Your task to perform on an android device: turn on priority inbox in the gmail app Image 0: 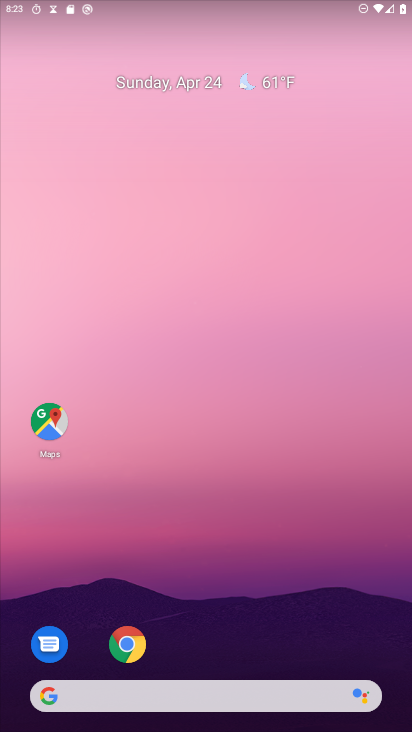
Step 0: drag from (205, 689) to (98, 146)
Your task to perform on an android device: turn on priority inbox in the gmail app Image 1: 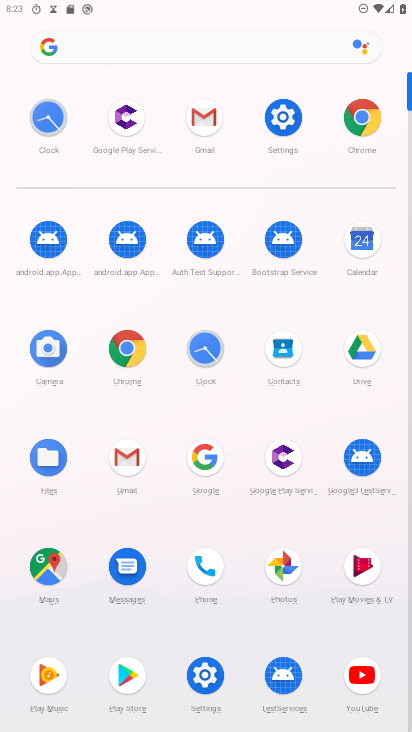
Step 1: click (132, 465)
Your task to perform on an android device: turn on priority inbox in the gmail app Image 2: 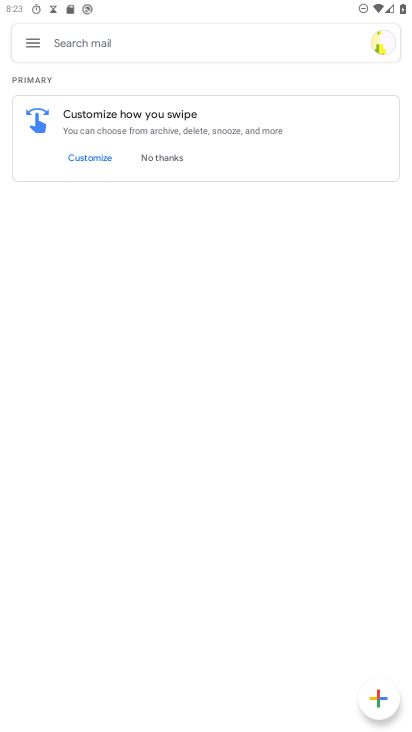
Step 2: click (37, 50)
Your task to perform on an android device: turn on priority inbox in the gmail app Image 3: 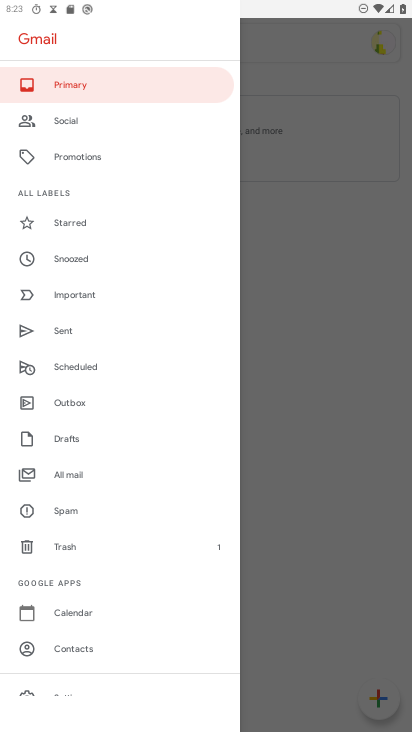
Step 3: drag from (105, 638) to (89, 156)
Your task to perform on an android device: turn on priority inbox in the gmail app Image 4: 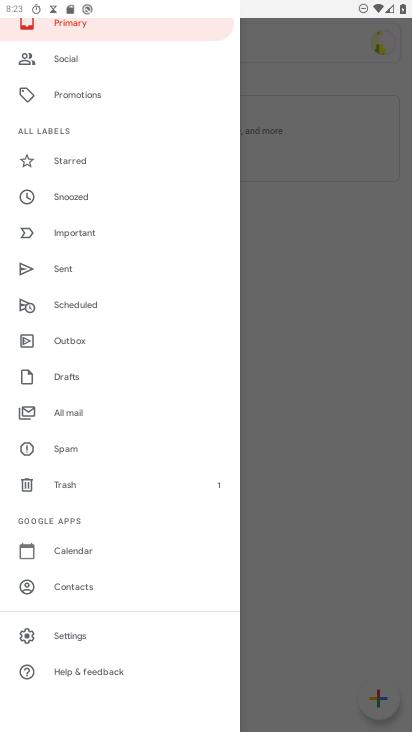
Step 4: click (80, 640)
Your task to perform on an android device: turn on priority inbox in the gmail app Image 5: 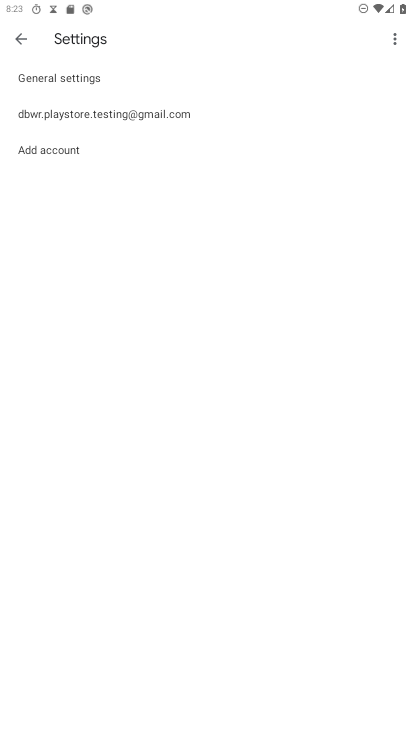
Step 5: click (114, 113)
Your task to perform on an android device: turn on priority inbox in the gmail app Image 6: 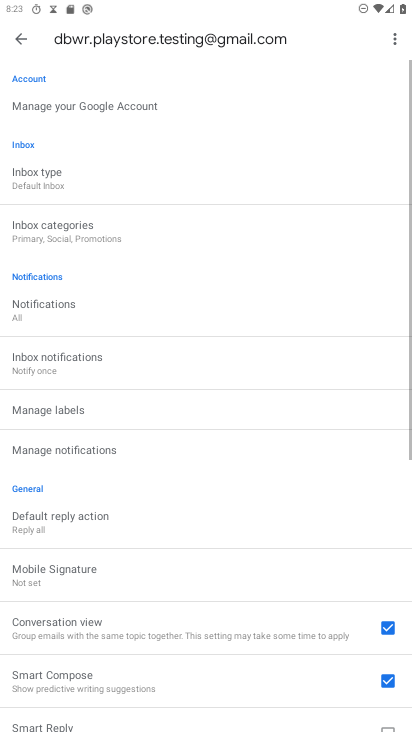
Step 6: click (48, 176)
Your task to perform on an android device: turn on priority inbox in the gmail app Image 7: 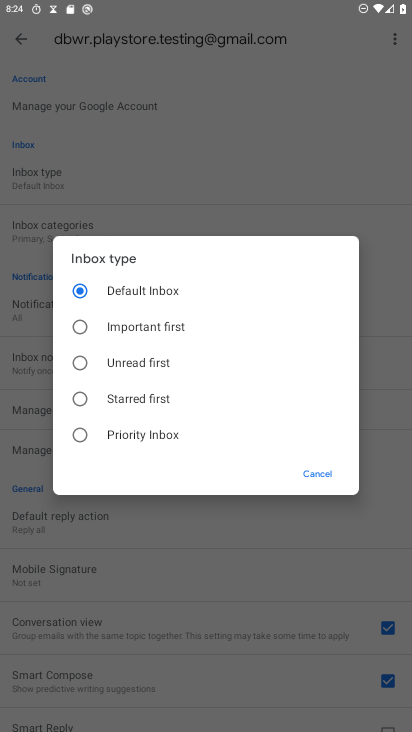
Step 7: click (120, 430)
Your task to perform on an android device: turn on priority inbox in the gmail app Image 8: 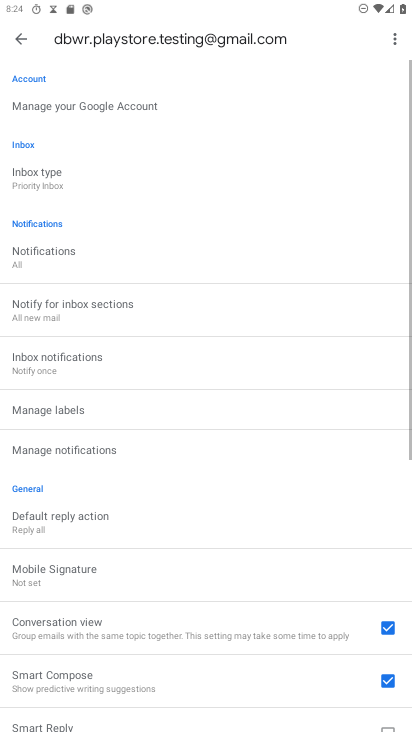
Step 8: task complete